Your task to perform on an android device: see tabs open on other devices in the chrome app Image 0: 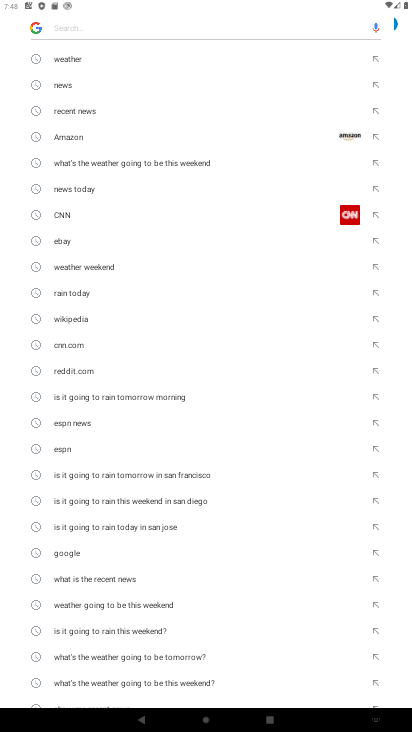
Step 0: press home button
Your task to perform on an android device: see tabs open on other devices in the chrome app Image 1: 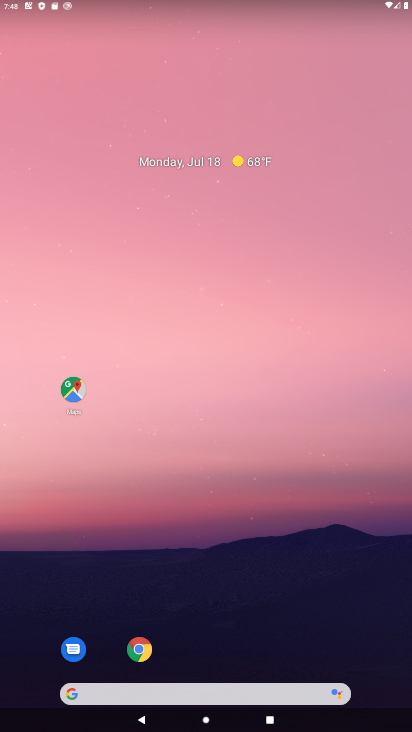
Step 1: click (142, 652)
Your task to perform on an android device: see tabs open on other devices in the chrome app Image 2: 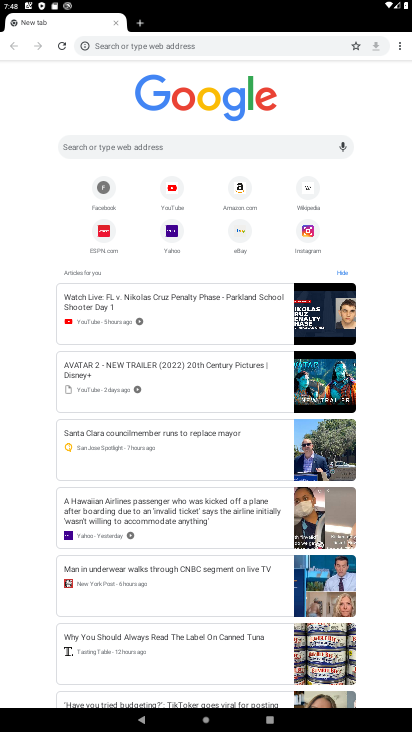
Step 2: click (400, 41)
Your task to perform on an android device: see tabs open on other devices in the chrome app Image 3: 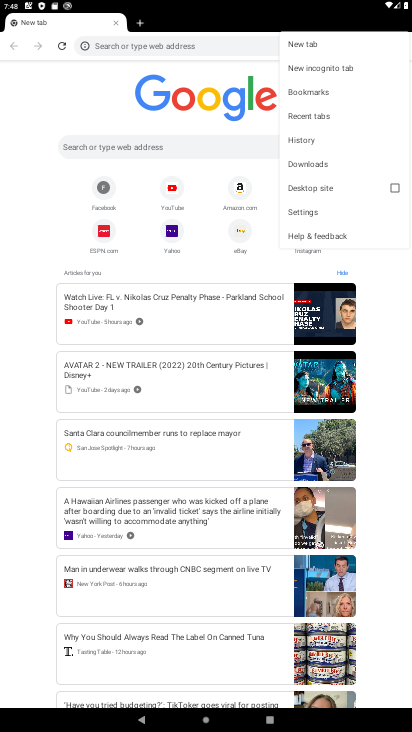
Step 3: click (314, 119)
Your task to perform on an android device: see tabs open on other devices in the chrome app Image 4: 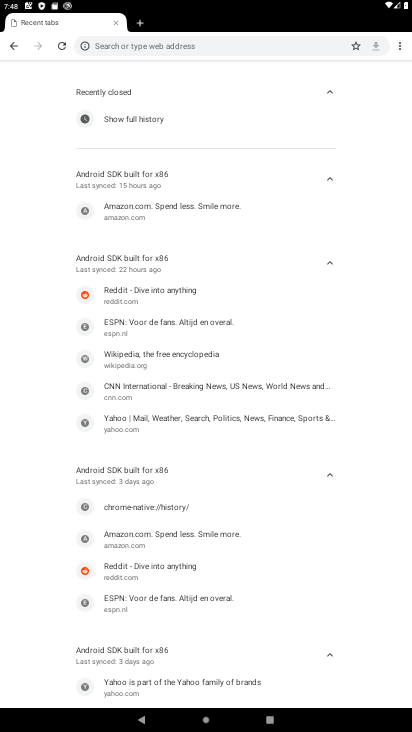
Step 4: task complete